Your task to perform on an android device: open app "Mercado Libre" (install if not already installed) and go to login screen Image 0: 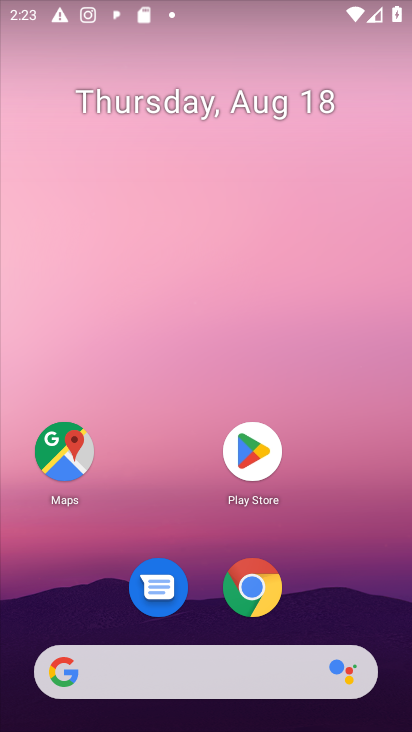
Step 0: click (252, 457)
Your task to perform on an android device: open app "Mercado Libre" (install if not already installed) and go to login screen Image 1: 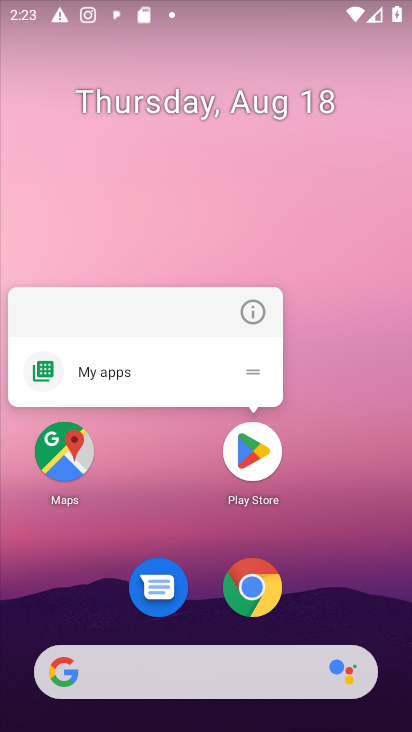
Step 1: click (252, 457)
Your task to perform on an android device: open app "Mercado Libre" (install if not already installed) and go to login screen Image 2: 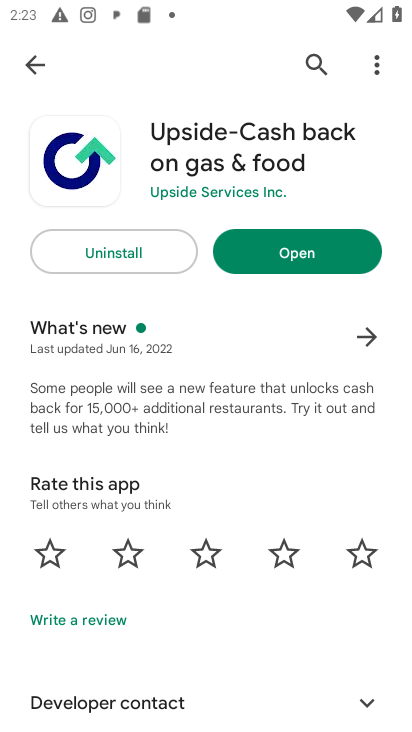
Step 2: click (311, 64)
Your task to perform on an android device: open app "Mercado Libre" (install if not already installed) and go to login screen Image 3: 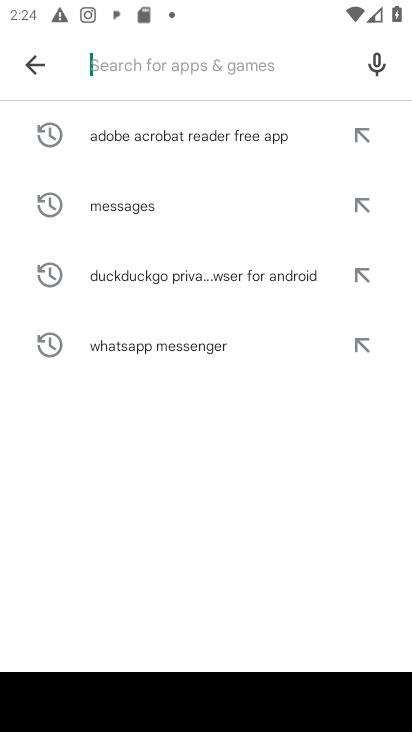
Step 3: type "Mercado Libre"
Your task to perform on an android device: open app "Mercado Libre" (install if not already installed) and go to login screen Image 4: 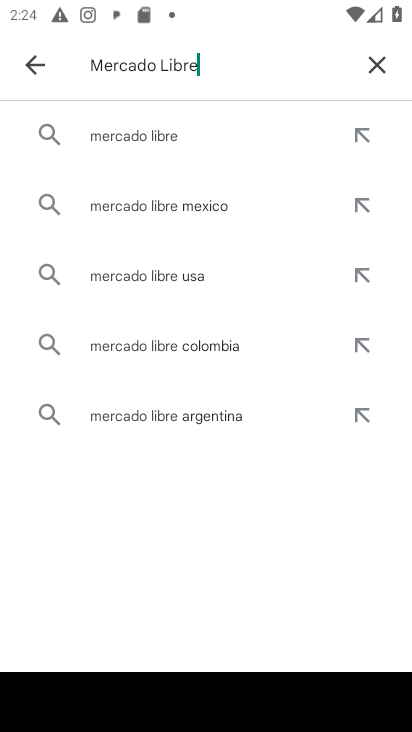
Step 4: click (142, 132)
Your task to perform on an android device: open app "Mercado Libre" (install if not already installed) and go to login screen Image 5: 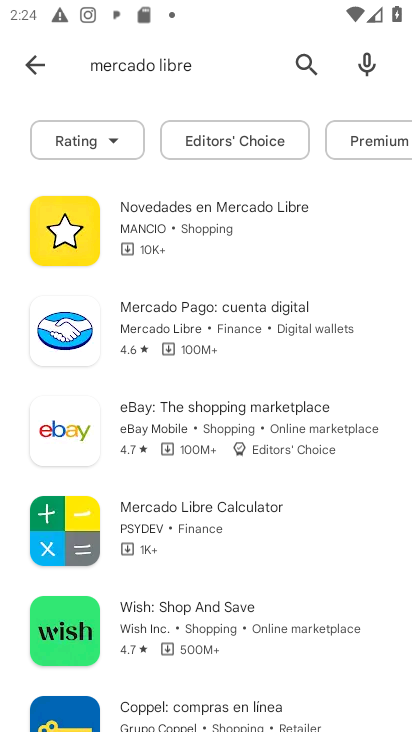
Step 5: task complete